Your task to perform on an android device: toggle pop-ups in chrome Image 0: 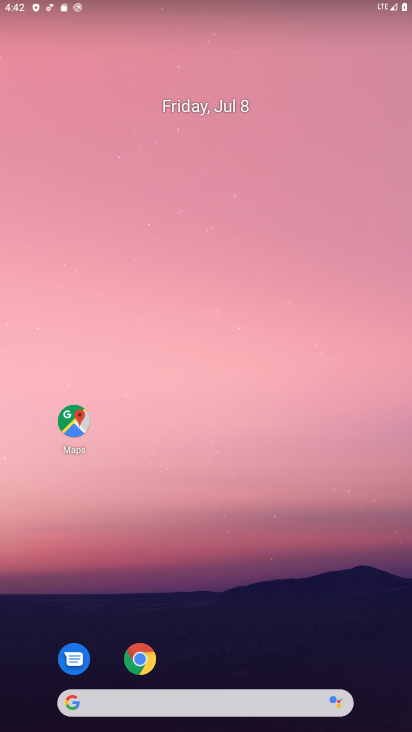
Step 0: click (133, 670)
Your task to perform on an android device: toggle pop-ups in chrome Image 1: 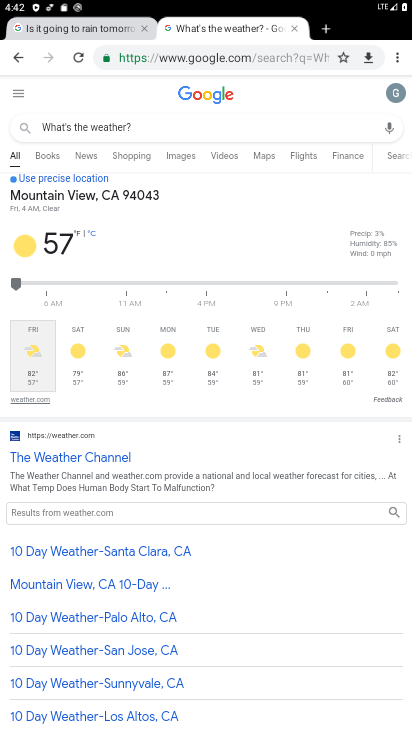
Step 1: task complete